Your task to perform on an android device: toggle show notifications on the lock screen Image 0: 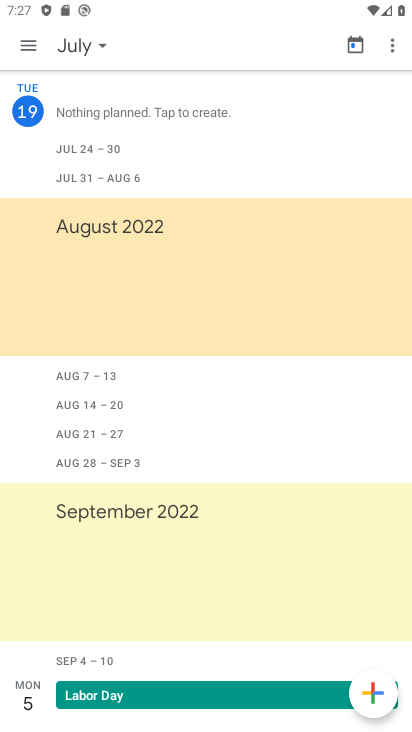
Step 0: press home button
Your task to perform on an android device: toggle show notifications on the lock screen Image 1: 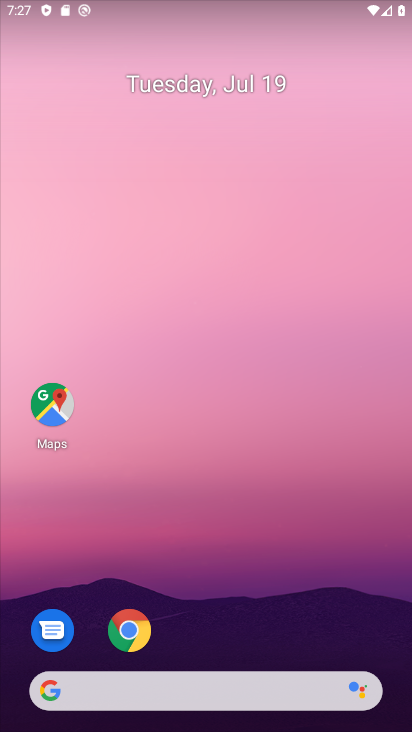
Step 1: drag from (240, 477) to (274, 284)
Your task to perform on an android device: toggle show notifications on the lock screen Image 2: 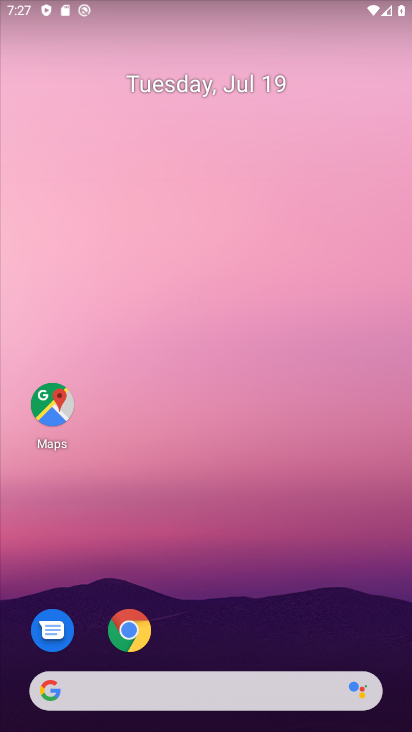
Step 2: drag from (249, 590) to (284, 10)
Your task to perform on an android device: toggle show notifications on the lock screen Image 3: 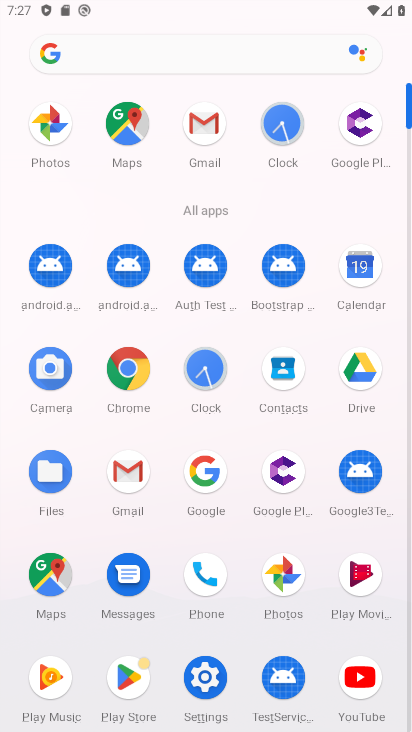
Step 3: click (196, 677)
Your task to perform on an android device: toggle show notifications on the lock screen Image 4: 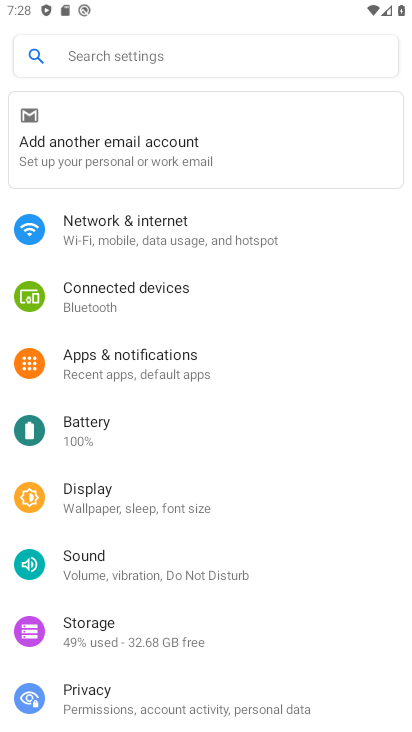
Step 4: drag from (171, 586) to (158, 331)
Your task to perform on an android device: toggle show notifications on the lock screen Image 5: 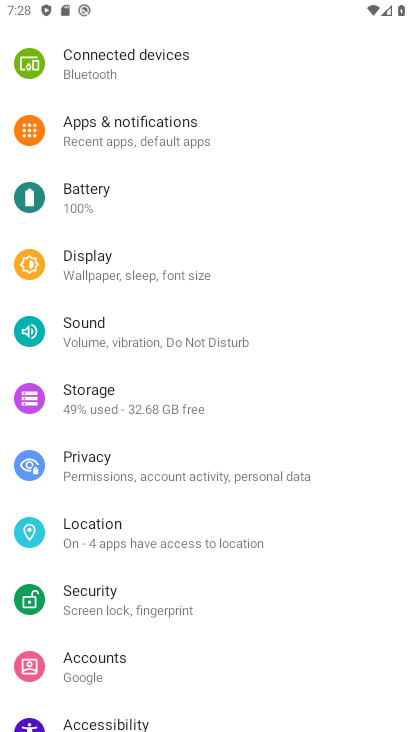
Step 5: click (112, 457)
Your task to perform on an android device: toggle show notifications on the lock screen Image 6: 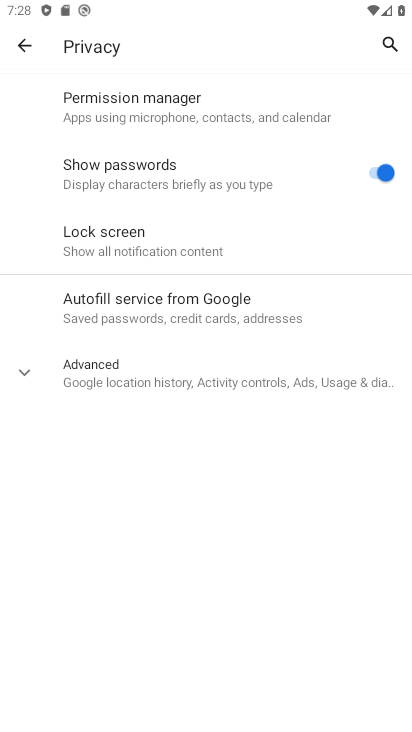
Step 6: task complete